Your task to perform on an android device: Search for a custom made wallet on Etsy Image 0: 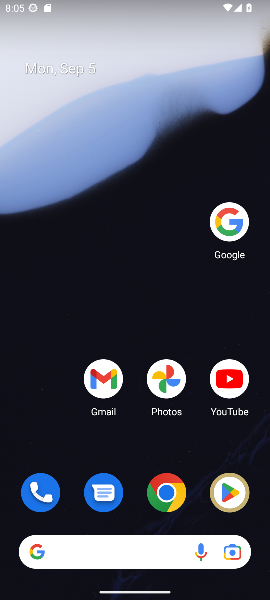
Step 0: click (220, 216)
Your task to perform on an android device: Search for a custom made wallet on Etsy Image 1: 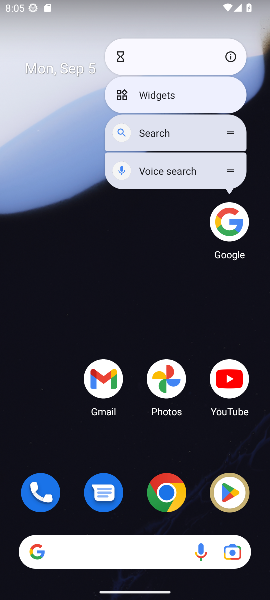
Step 1: click (220, 216)
Your task to perform on an android device: Search for a custom made wallet on Etsy Image 2: 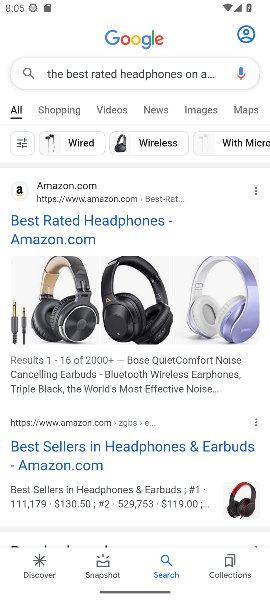
Step 2: click (147, 62)
Your task to perform on an android device: Search for a custom made wallet on Etsy Image 3: 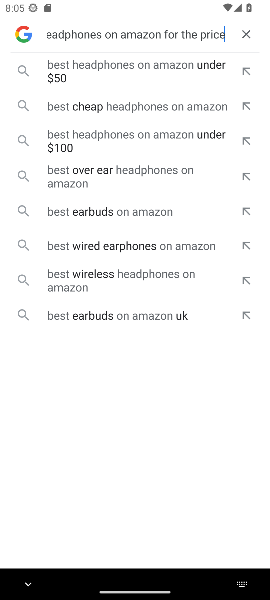
Step 3: click (244, 32)
Your task to perform on an android device: Search for a custom made wallet on Etsy Image 4: 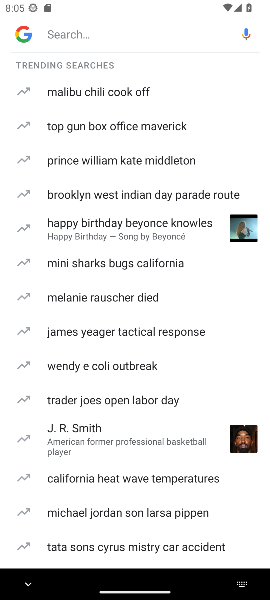
Step 4: type "a custom made wallet on Etsy "
Your task to perform on an android device: Search for a custom made wallet on Etsy Image 5: 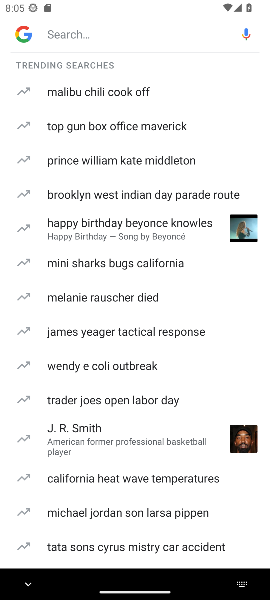
Step 5: click (182, 30)
Your task to perform on an android device: Search for a custom made wallet on Etsy Image 6: 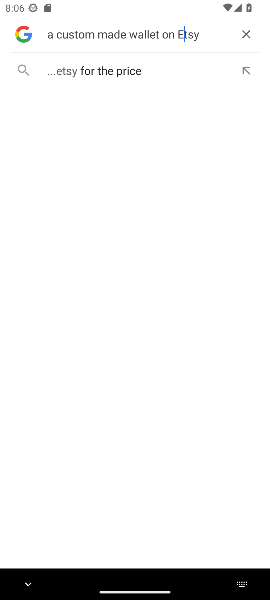
Step 6: click (62, 73)
Your task to perform on an android device: Search for a custom made wallet on Etsy Image 7: 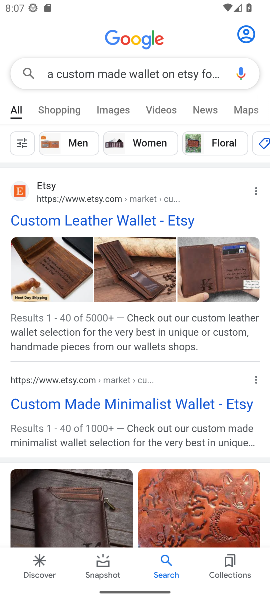
Step 7: click (140, 215)
Your task to perform on an android device: Search for a custom made wallet on Etsy Image 8: 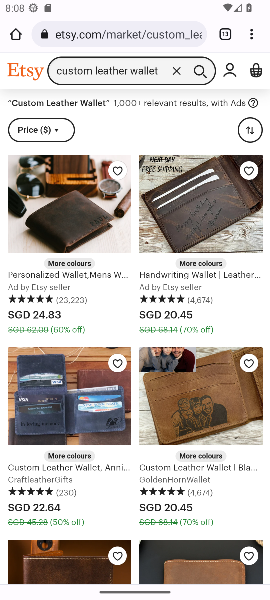
Step 8: task complete